Your task to perform on an android device: Open internet settings Image 0: 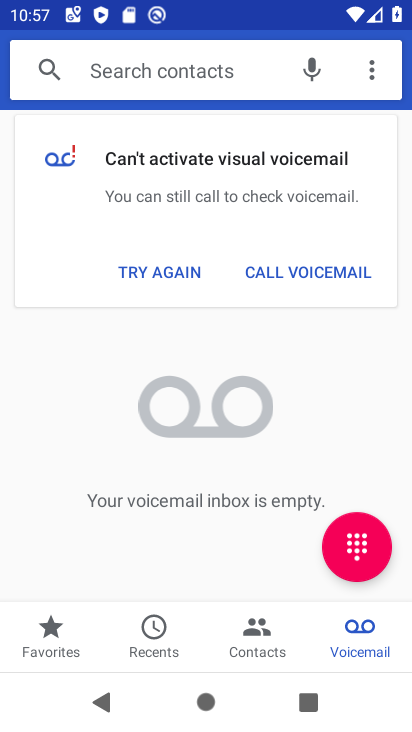
Step 0: press home button
Your task to perform on an android device: Open internet settings Image 1: 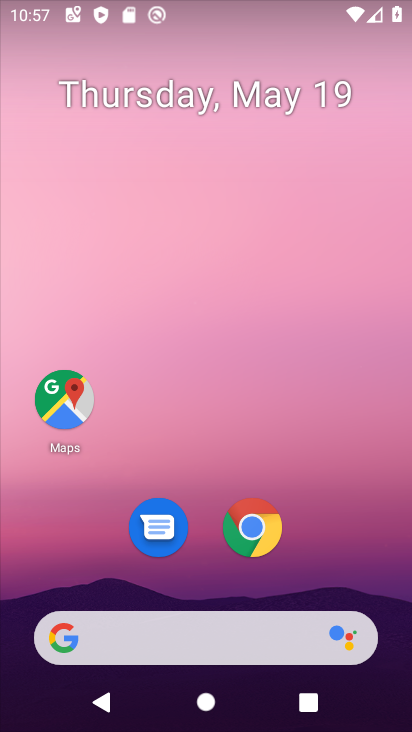
Step 1: drag from (218, 583) to (253, 51)
Your task to perform on an android device: Open internet settings Image 2: 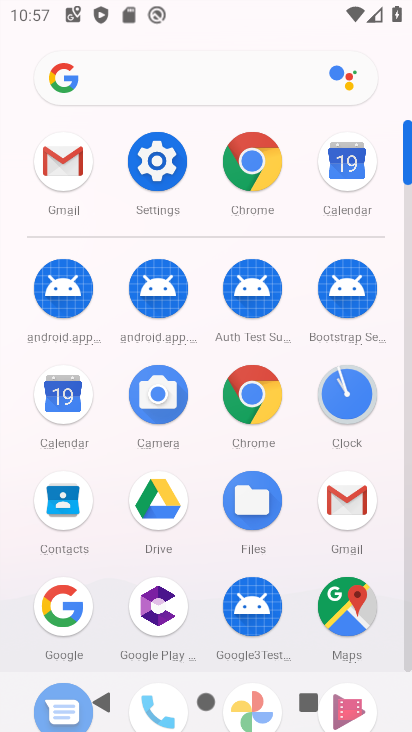
Step 2: click (173, 181)
Your task to perform on an android device: Open internet settings Image 3: 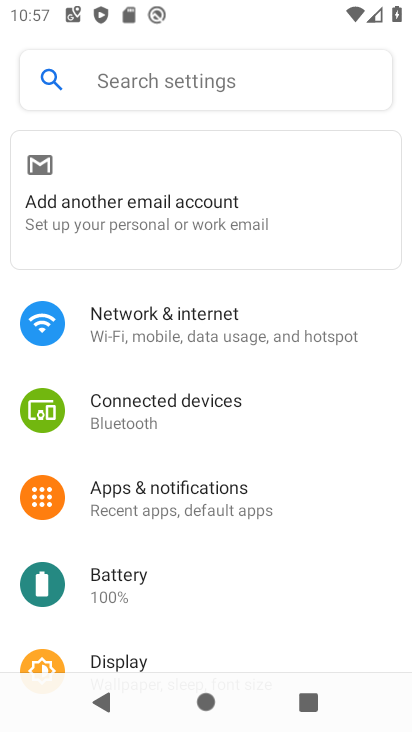
Step 3: click (181, 346)
Your task to perform on an android device: Open internet settings Image 4: 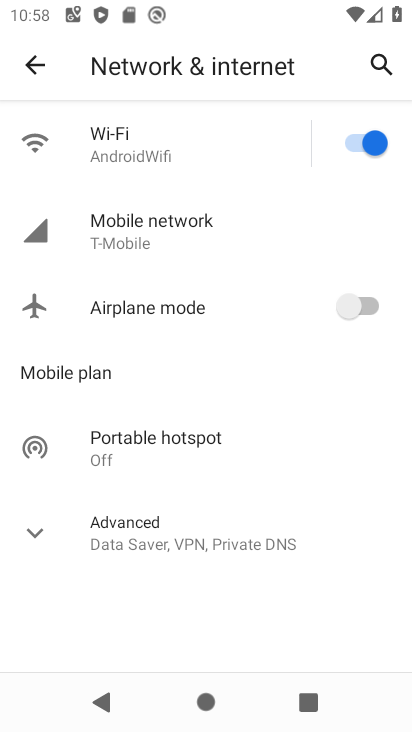
Step 4: task complete